Your task to perform on an android device: Open calendar and show me the third week of next month Image 0: 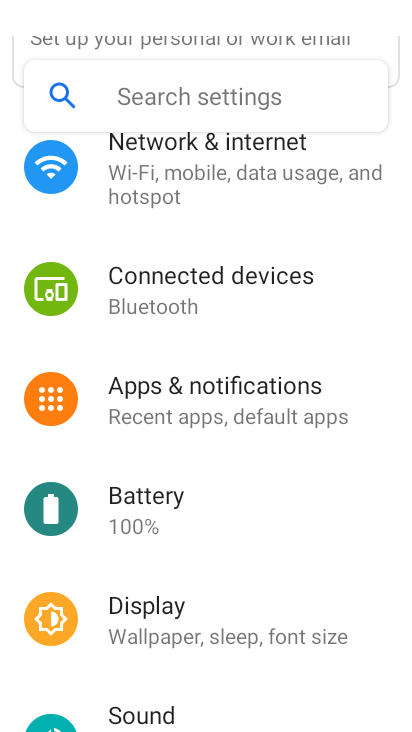
Step 0: press home button
Your task to perform on an android device: Open calendar and show me the third week of next month Image 1: 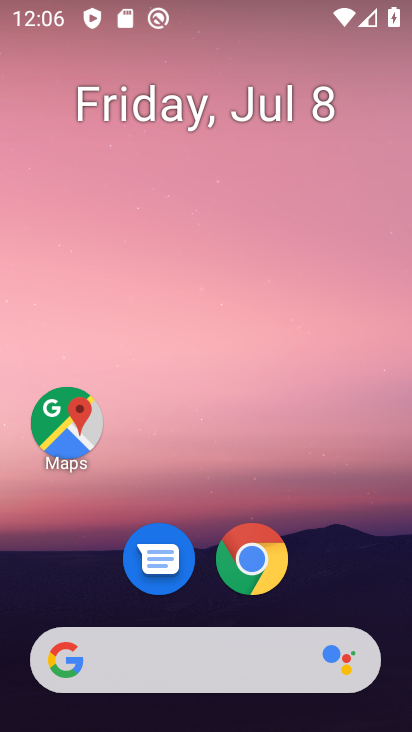
Step 1: drag from (223, 603) to (178, 38)
Your task to perform on an android device: Open calendar and show me the third week of next month Image 2: 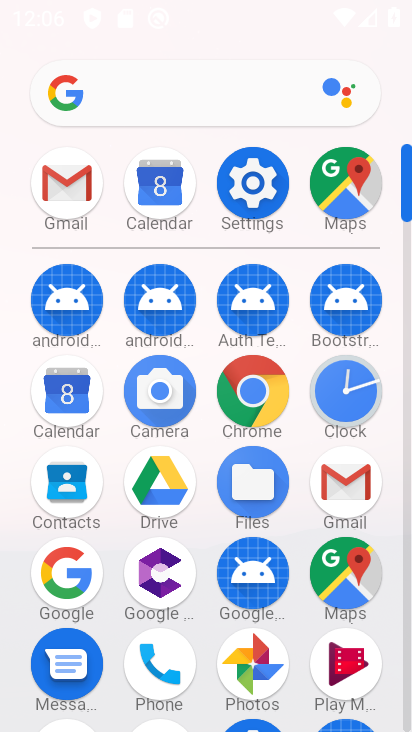
Step 2: click (76, 386)
Your task to perform on an android device: Open calendar and show me the third week of next month Image 3: 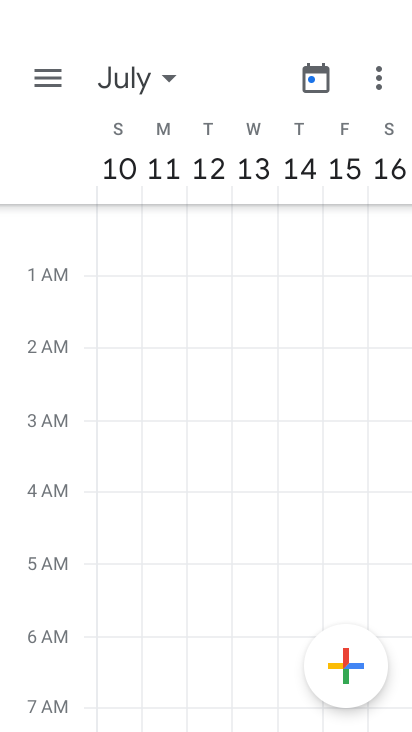
Step 3: task complete